Your task to perform on an android device: clear all cookies in the chrome app Image 0: 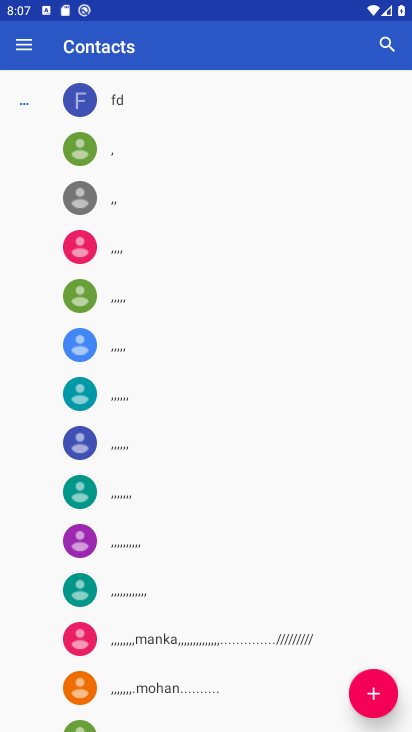
Step 0: press home button
Your task to perform on an android device: clear all cookies in the chrome app Image 1: 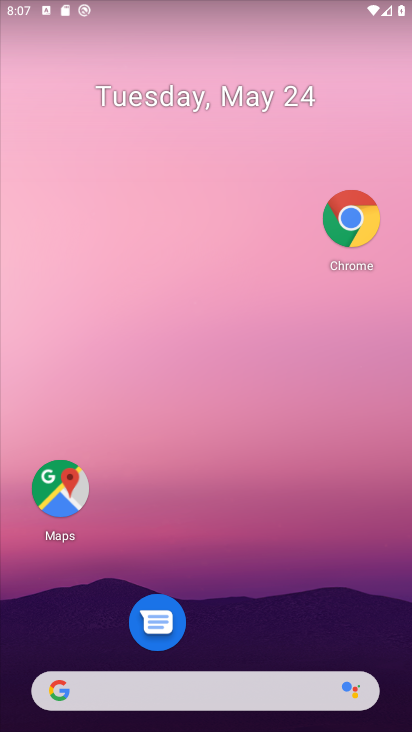
Step 1: drag from (221, 700) to (223, 220)
Your task to perform on an android device: clear all cookies in the chrome app Image 2: 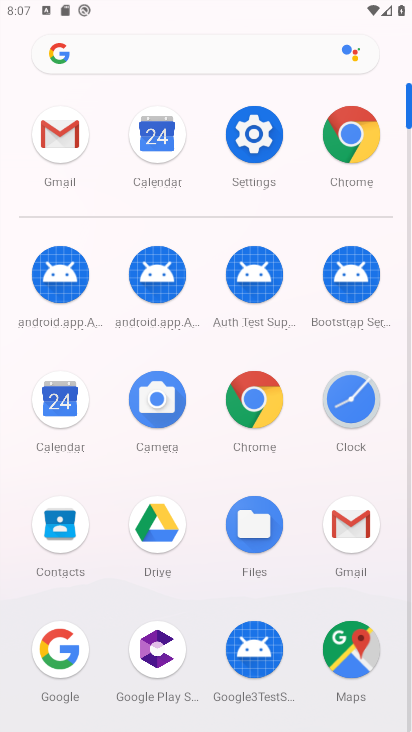
Step 2: click (344, 151)
Your task to perform on an android device: clear all cookies in the chrome app Image 3: 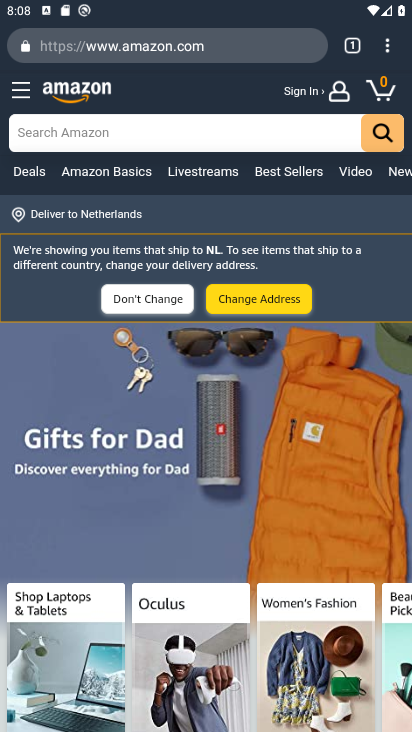
Step 3: click (393, 51)
Your task to perform on an android device: clear all cookies in the chrome app Image 4: 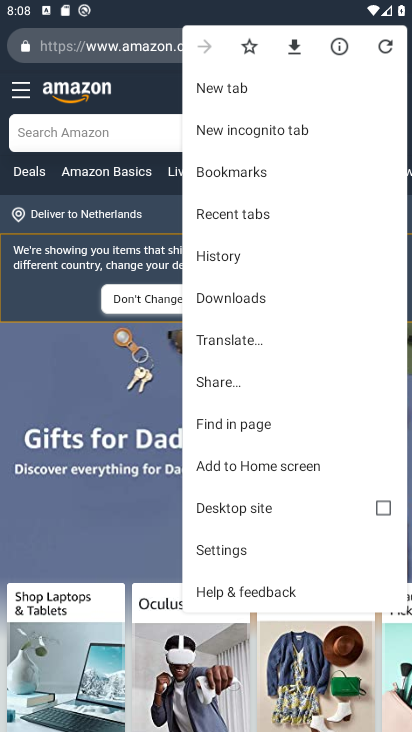
Step 4: click (240, 258)
Your task to perform on an android device: clear all cookies in the chrome app Image 5: 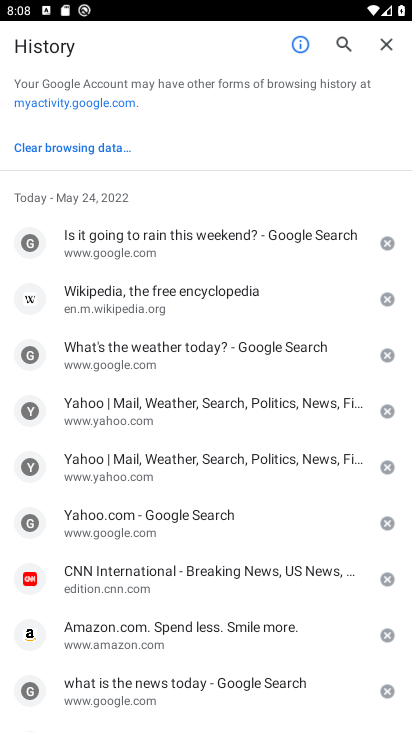
Step 5: click (62, 149)
Your task to perform on an android device: clear all cookies in the chrome app Image 6: 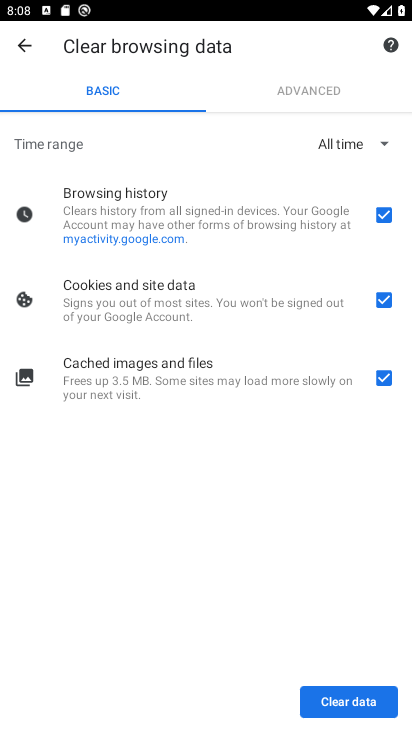
Step 6: click (370, 696)
Your task to perform on an android device: clear all cookies in the chrome app Image 7: 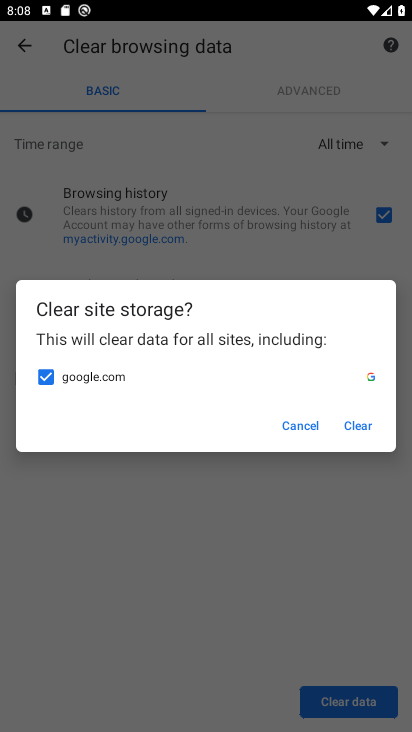
Step 7: task complete